Your task to perform on an android device: Go to Google maps Image 0: 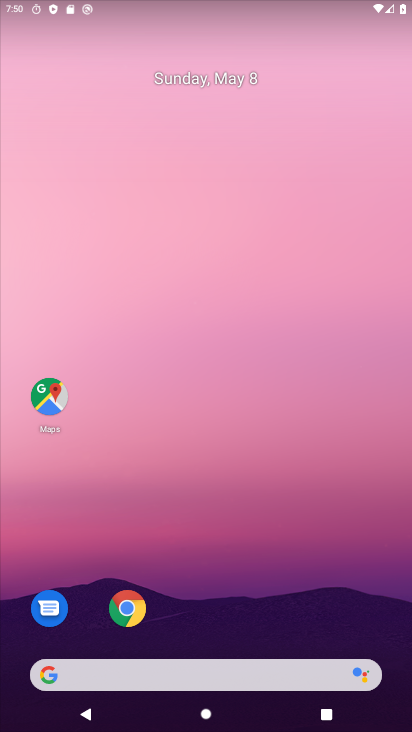
Step 0: click (56, 407)
Your task to perform on an android device: Go to Google maps Image 1: 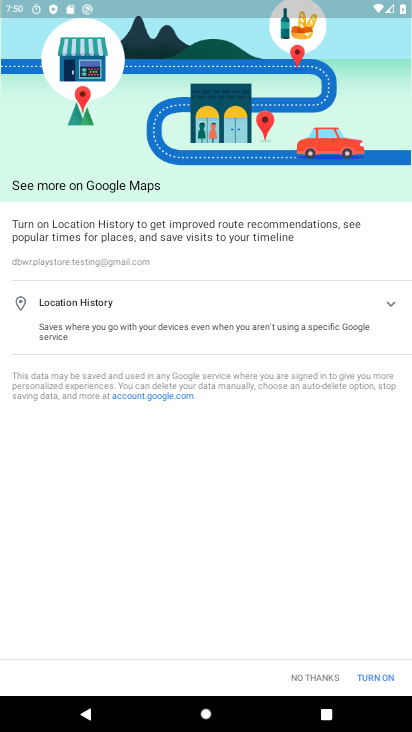
Step 1: task complete